Your task to perform on an android device: turn notification dots off Image 0: 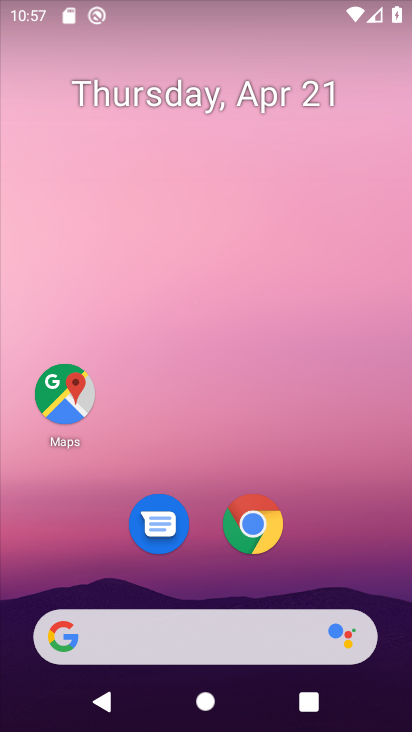
Step 0: drag from (311, 537) to (322, 145)
Your task to perform on an android device: turn notification dots off Image 1: 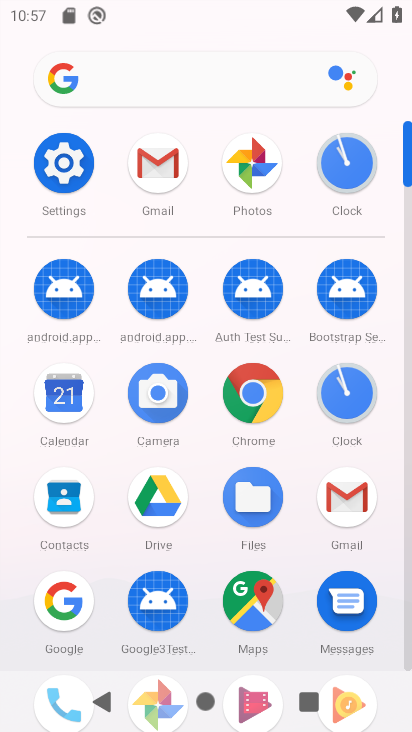
Step 1: click (65, 168)
Your task to perform on an android device: turn notification dots off Image 2: 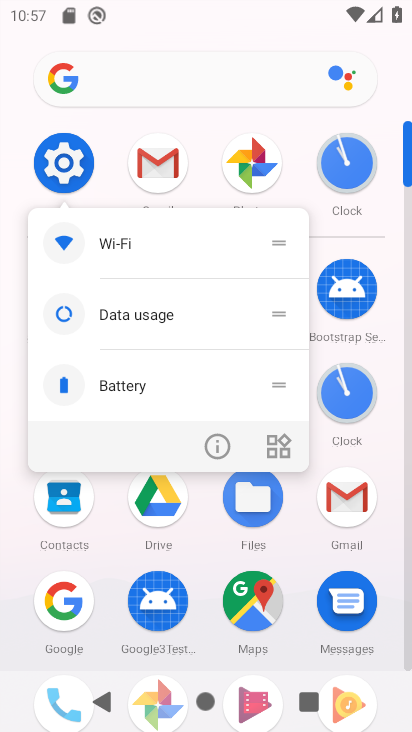
Step 2: click (68, 155)
Your task to perform on an android device: turn notification dots off Image 3: 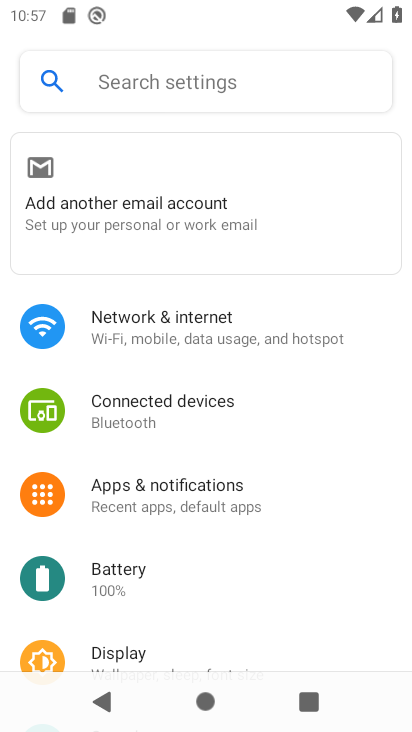
Step 3: click (208, 493)
Your task to perform on an android device: turn notification dots off Image 4: 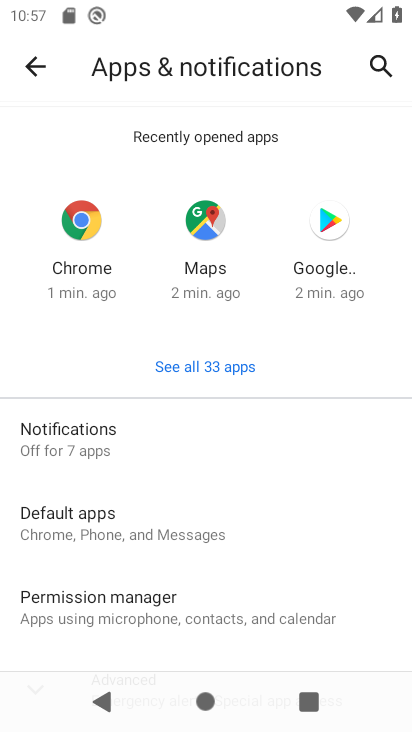
Step 4: click (219, 433)
Your task to perform on an android device: turn notification dots off Image 5: 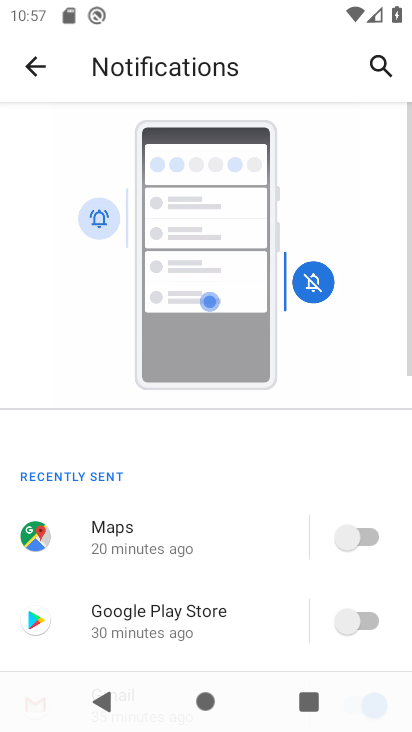
Step 5: drag from (249, 566) to (322, 132)
Your task to perform on an android device: turn notification dots off Image 6: 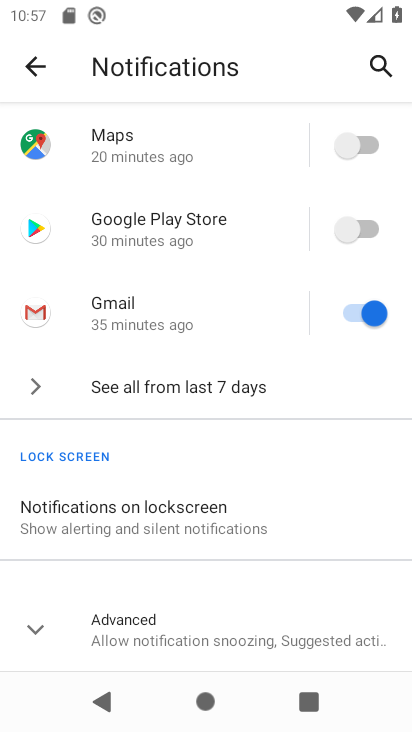
Step 6: drag from (188, 579) to (210, 322)
Your task to perform on an android device: turn notification dots off Image 7: 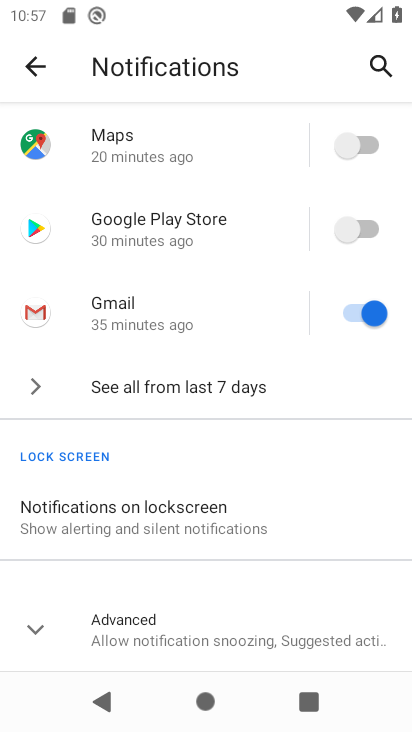
Step 7: click (37, 626)
Your task to perform on an android device: turn notification dots off Image 8: 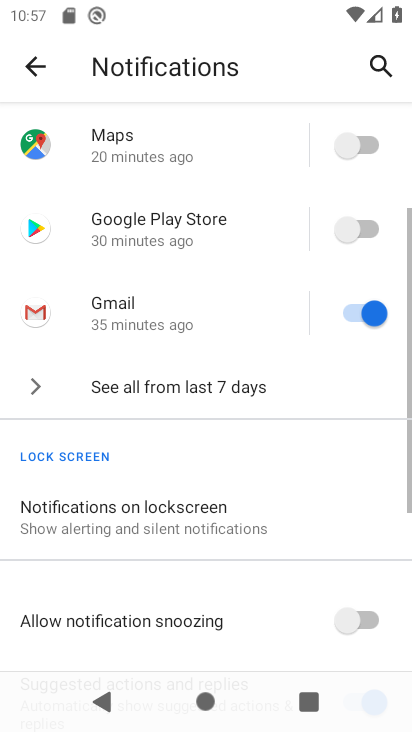
Step 8: drag from (204, 571) to (256, 201)
Your task to perform on an android device: turn notification dots off Image 9: 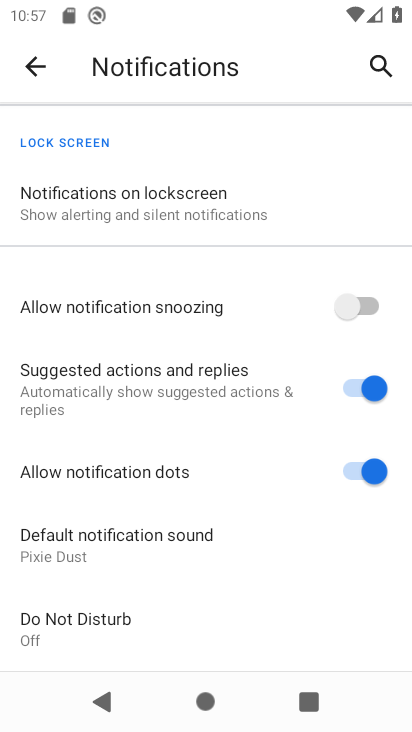
Step 9: click (322, 461)
Your task to perform on an android device: turn notification dots off Image 10: 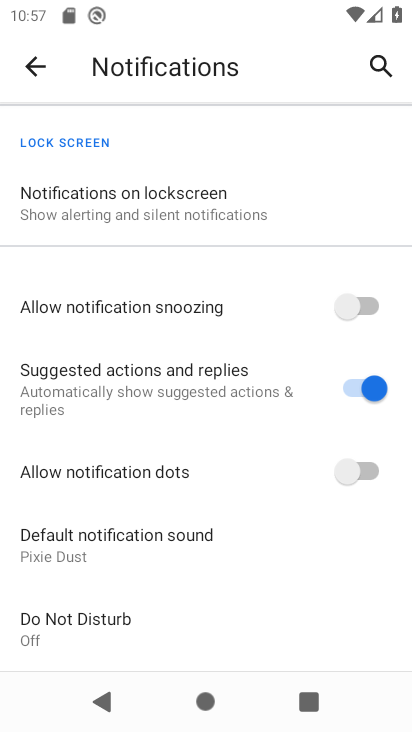
Step 10: task complete